Your task to perform on an android device: delete the emails in spam in the gmail app Image 0: 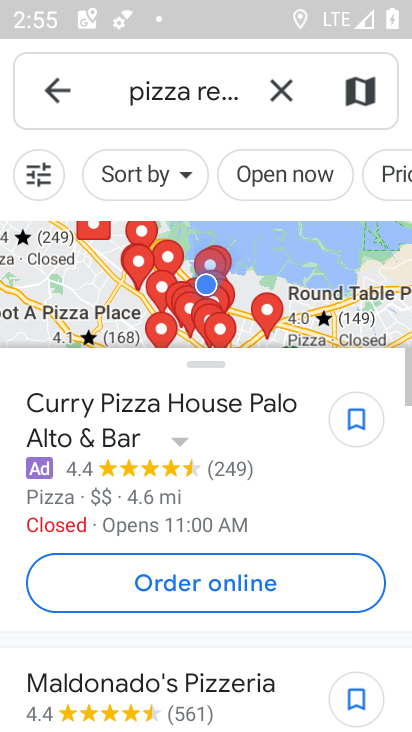
Step 0: press home button
Your task to perform on an android device: delete the emails in spam in the gmail app Image 1: 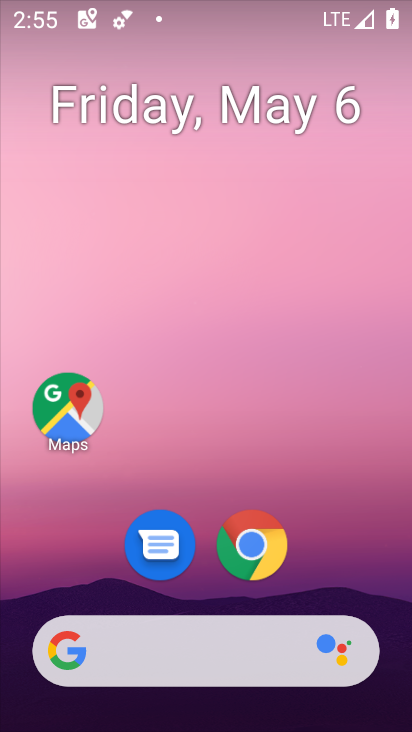
Step 1: drag from (398, 637) to (400, 235)
Your task to perform on an android device: delete the emails in spam in the gmail app Image 2: 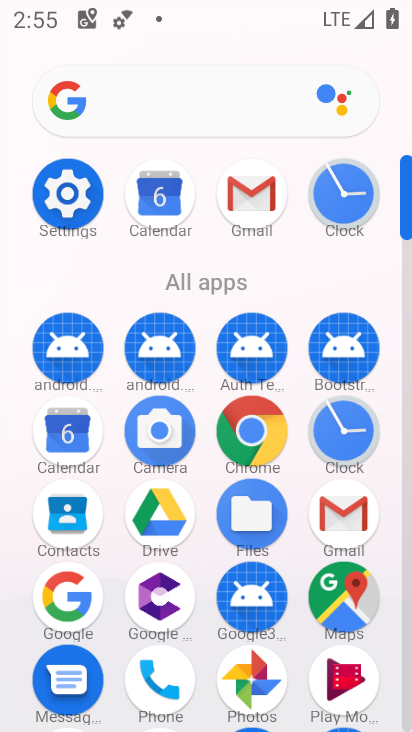
Step 2: click (327, 521)
Your task to perform on an android device: delete the emails in spam in the gmail app Image 3: 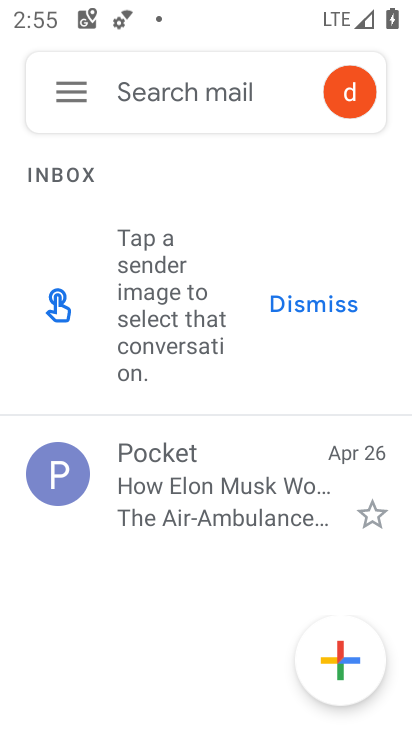
Step 3: click (74, 80)
Your task to perform on an android device: delete the emails in spam in the gmail app Image 4: 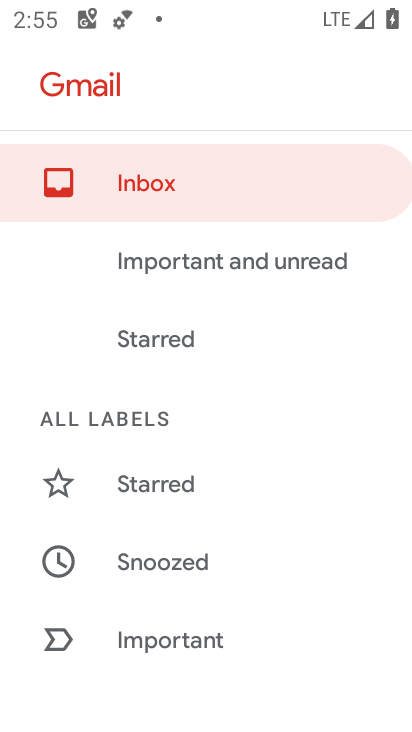
Step 4: drag from (288, 498) to (284, 336)
Your task to perform on an android device: delete the emails in spam in the gmail app Image 5: 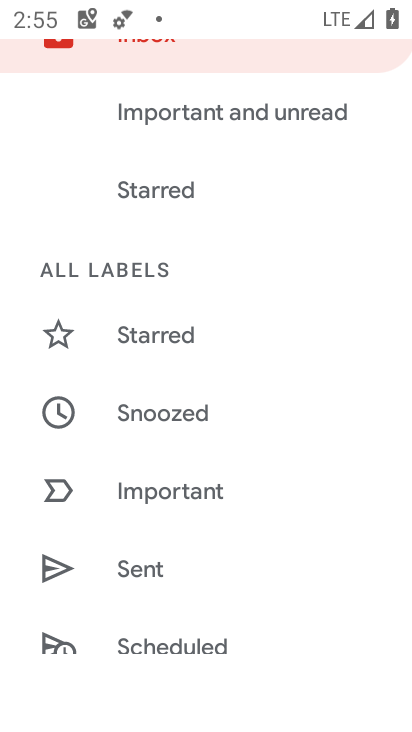
Step 5: drag from (314, 578) to (298, 392)
Your task to perform on an android device: delete the emails in spam in the gmail app Image 6: 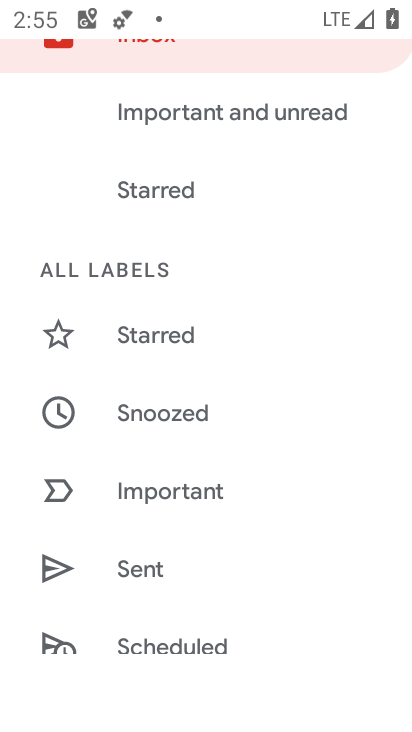
Step 6: drag from (311, 654) to (293, 412)
Your task to perform on an android device: delete the emails in spam in the gmail app Image 7: 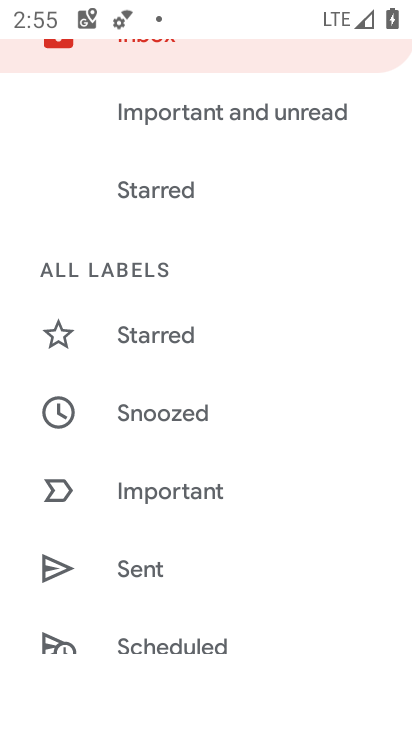
Step 7: drag from (300, 567) to (315, 260)
Your task to perform on an android device: delete the emails in spam in the gmail app Image 8: 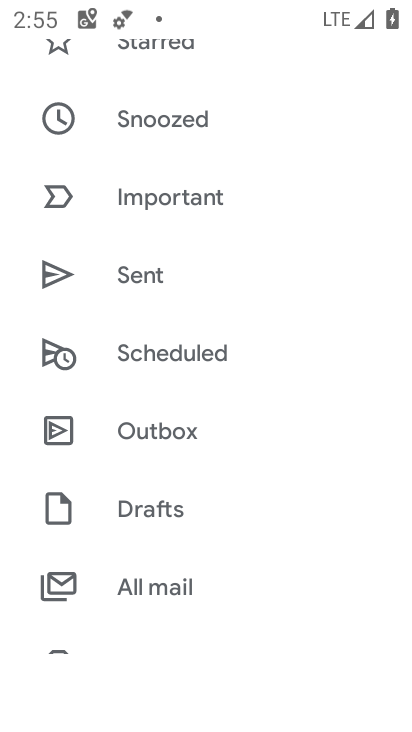
Step 8: drag from (334, 607) to (330, 287)
Your task to perform on an android device: delete the emails in spam in the gmail app Image 9: 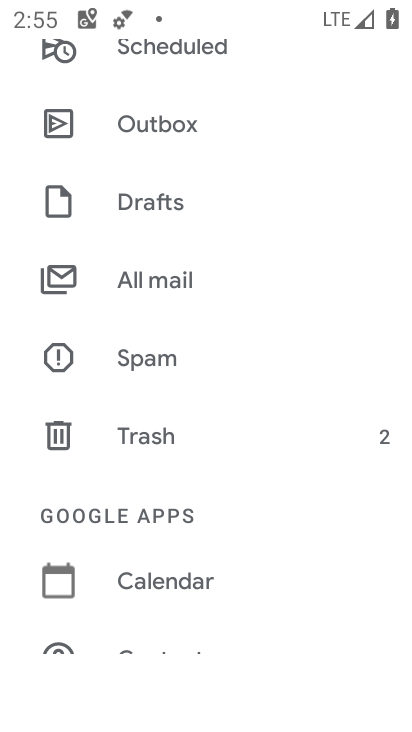
Step 9: click (127, 360)
Your task to perform on an android device: delete the emails in spam in the gmail app Image 10: 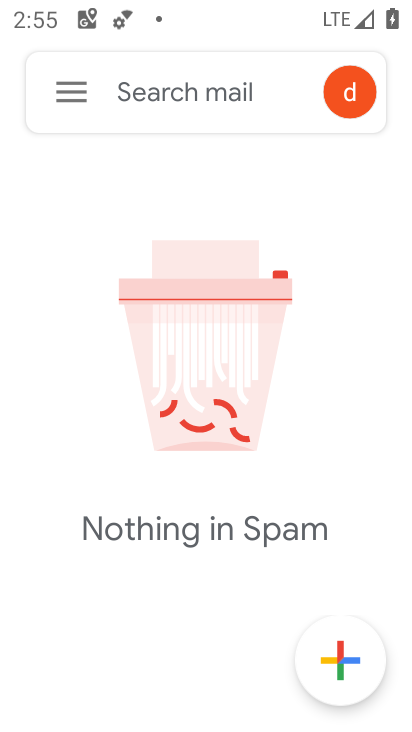
Step 10: task complete